Your task to perform on an android device: toggle translation in the chrome app Image 0: 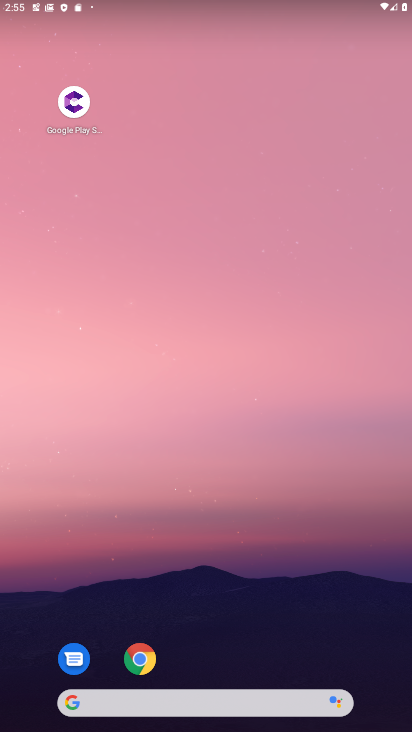
Step 0: press home button
Your task to perform on an android device: toggle translation in the chrome app Image 1: 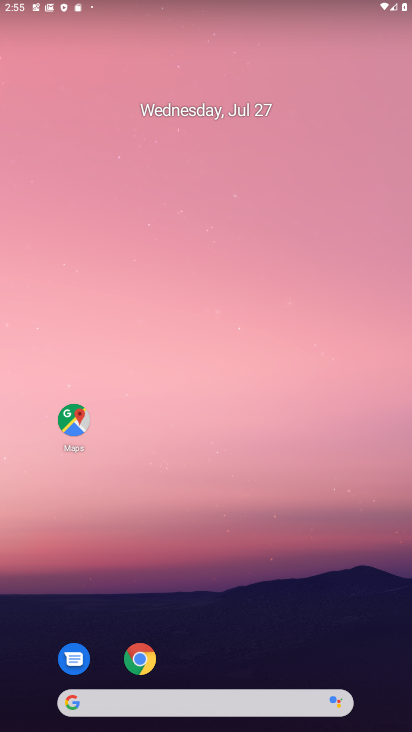
Step 1: click (145, 660)
Your task to perform on an android device: toggle translation in the chrome app Image 2: 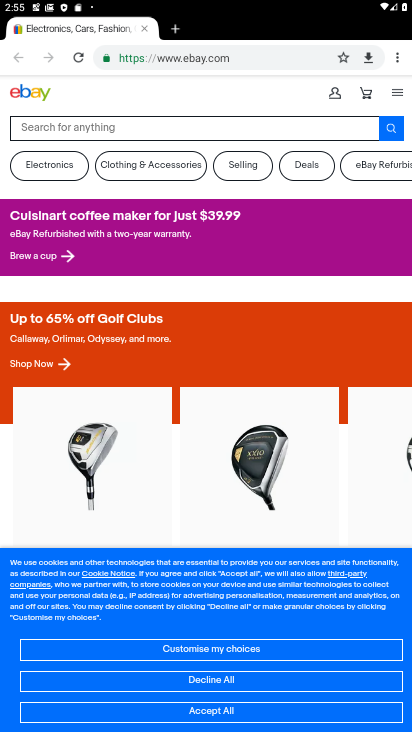
Step 2: click (391, 50)
Your task to perform on an android device: toggle translation in the chrome app Image 3: 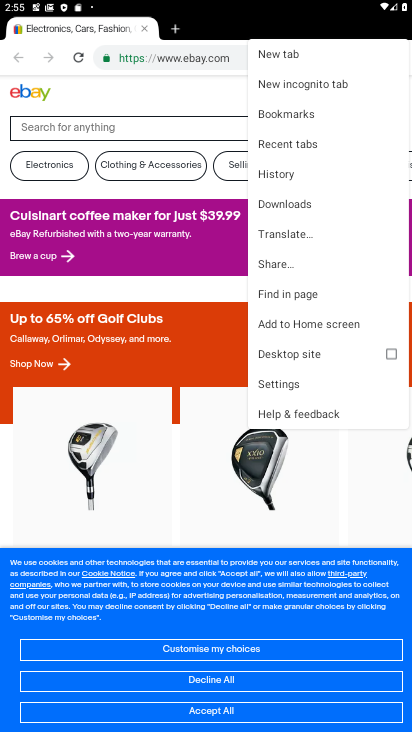
Step 3: click (302, 380)
Your task to perform on an android device: toggle translation in the chrome app Image 4: 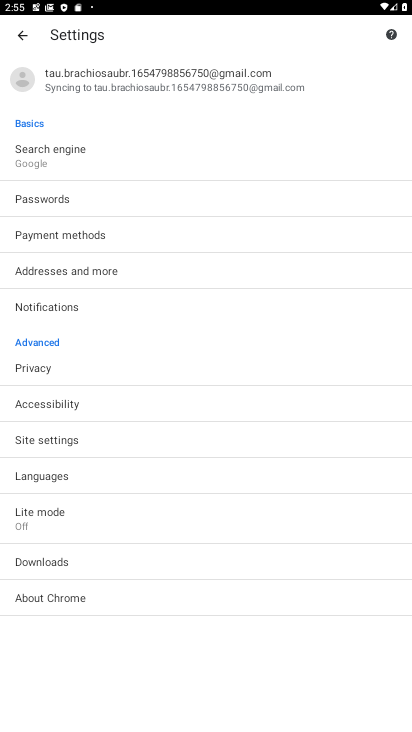
Step 4: click (29, 474)
Your task to perform on an android device: toggle translation in the chrome app Image 5: 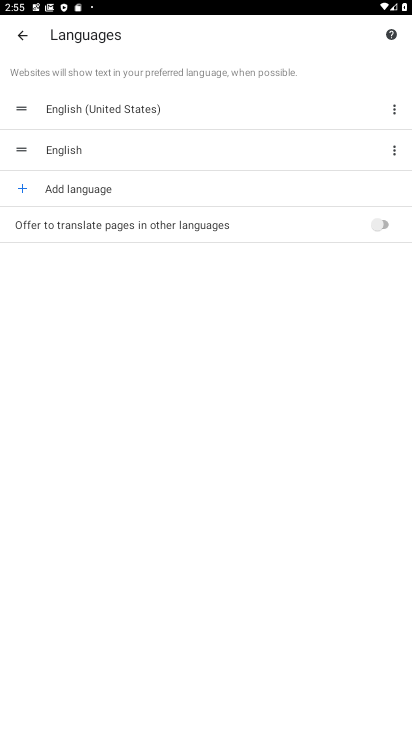
Step 5: click (377, 216)
Your task to perform on an android device: toggle translation in the chrome app Image 6: 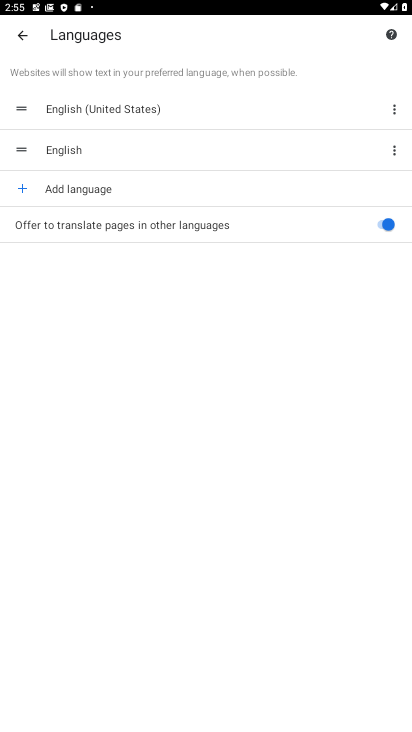
Step 6: task complete